Your task to perform on an android device: Do I have any events this weekend? Image 0: 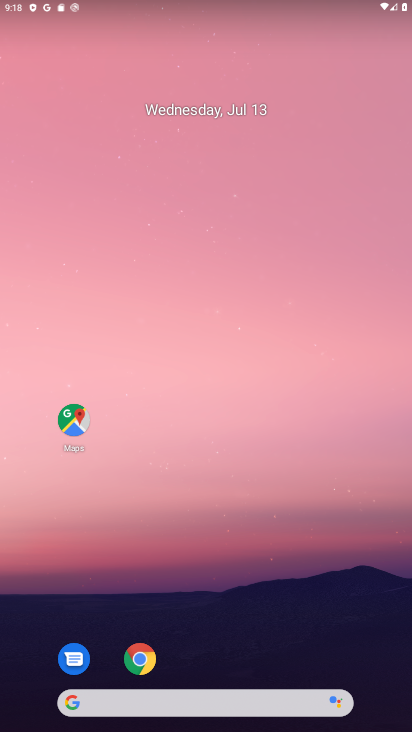
Step 0: drag from (220, 667) to (200, 283)
Your task to perform on an android device: Do I have any events this weekend? Image 1: 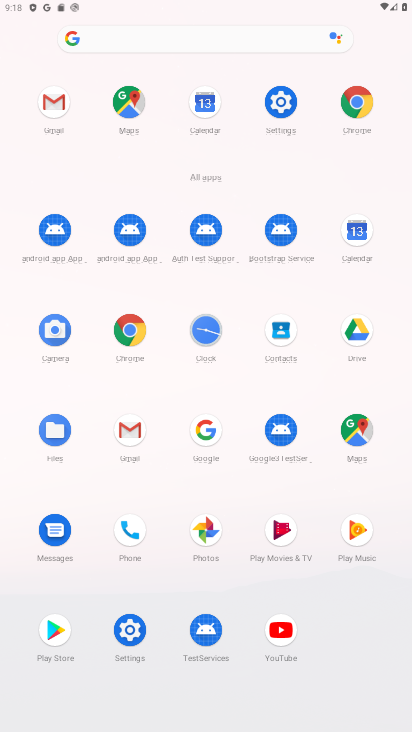
Step 1: click (352, 232)
Your task to perform on an android device: Do I have any events this weekend? Image 2: 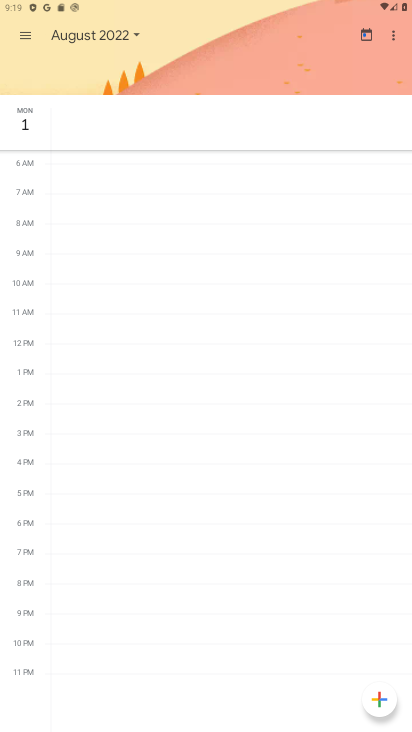
Step 2: click (25, 32)
Your task to perform on an android device: Do I have any events this weekend? Image 3: 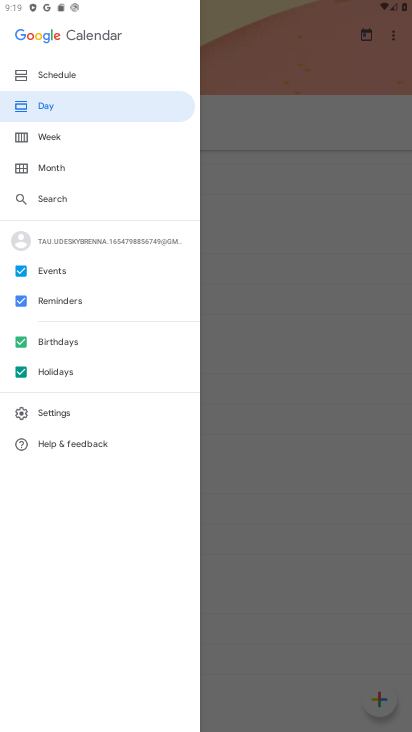
Step 3: click (50, 131)
Your task to perform on an android device: Do I have any events this weekend? Image 4: 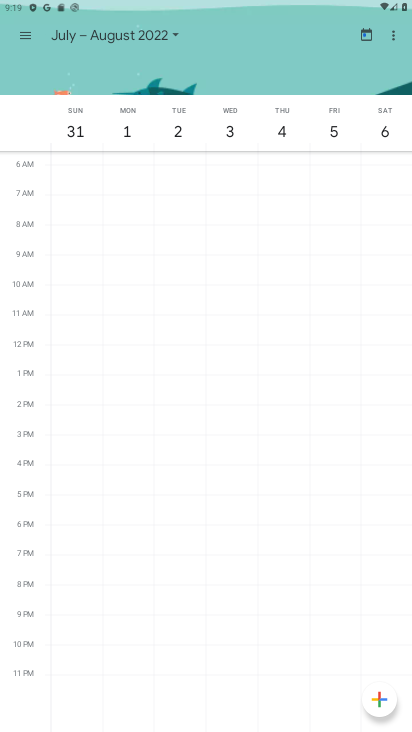
Step 4: drag from (64, 134) to (360, 126)
Your task to perform on an android device: Do I have any events this weekend? Image 5: 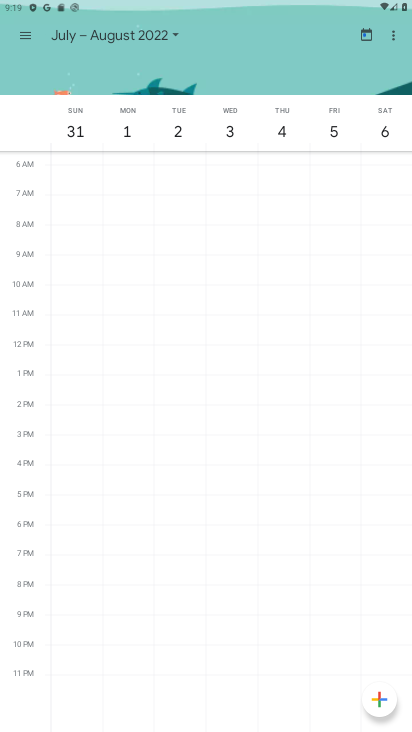
Step 5: drag from (83, 126) to (291, 138)
Your task to perform on an android device: Do I have any events this weekend? Image 6: 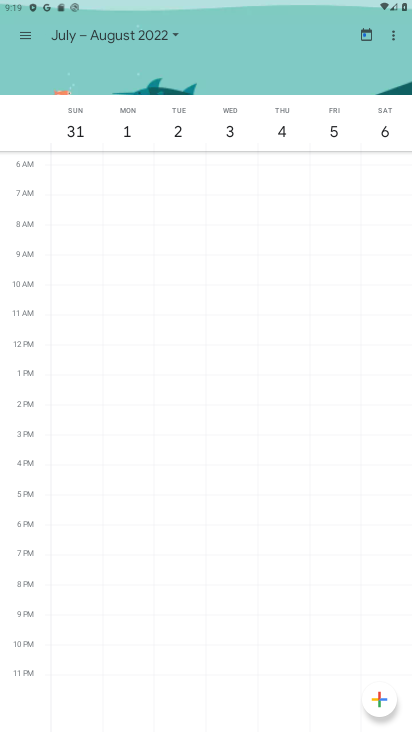
Step 6: drag from (64, 125) to (337, 130)
Your task to perform on an android device: Do I have any events this weekend? Image 7: 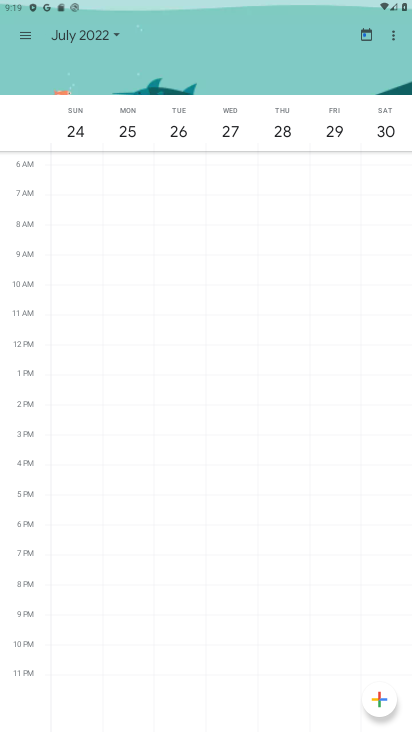
Step 7: drag from (67, 137) to (410, 126)
Your task to perform on an android device: Do I have any events this weekend? Image 8: 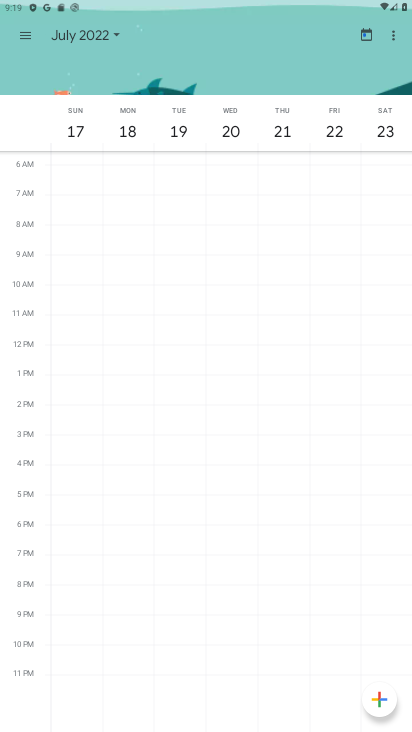
Step 8: drag from (72, 134) to (395, 118)
Your task to perform on an android device: Do I have any events this weekend? Image 9: 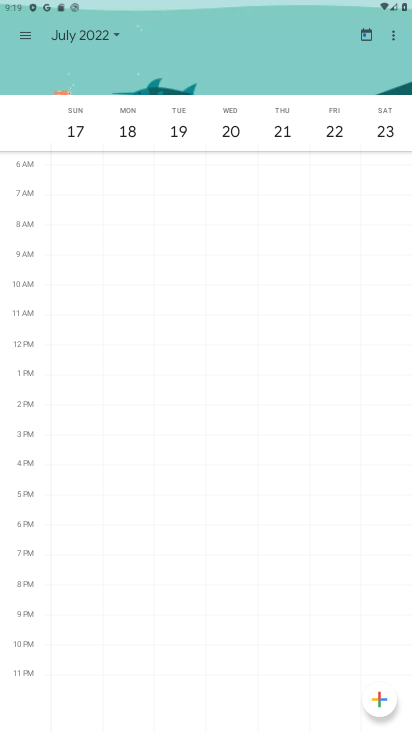
Step 9: drag from (92, 123) to (410, 131)
Your task to perform on an android device: Do I have any events this weekend? Image 10: 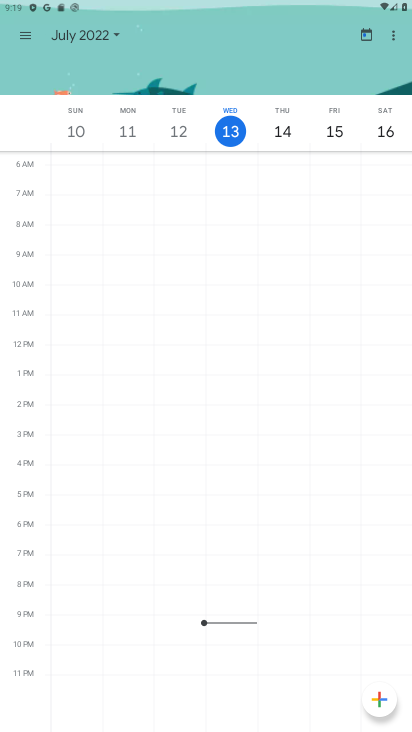
Step 10: click (236, 133)
Your task to perform on an android device: Do I have any events this weekend? Image 11: 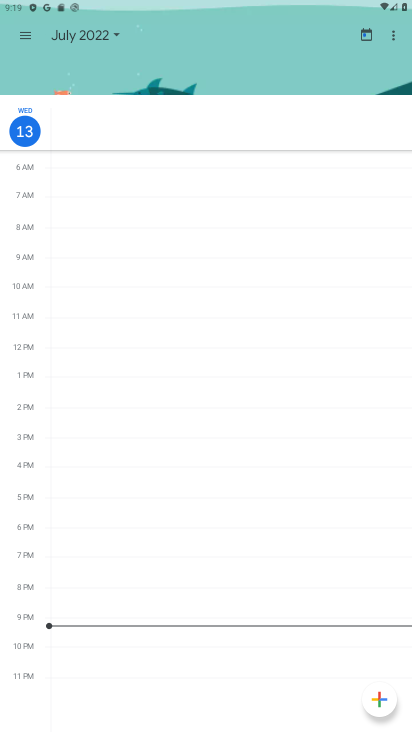
Step 11: click (31, 132)
Your task to perform on an android device: Do I have any events this weekend? Image 12: 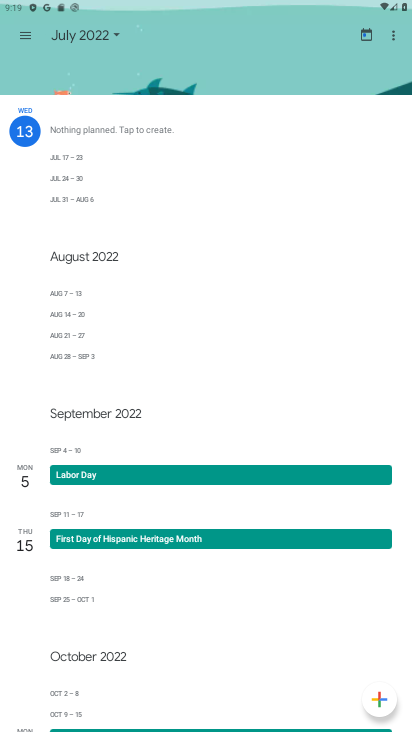
Step 12: task complete